Your task to perform on an android device: Search for vegetarian restaurants on Maps Image 0: 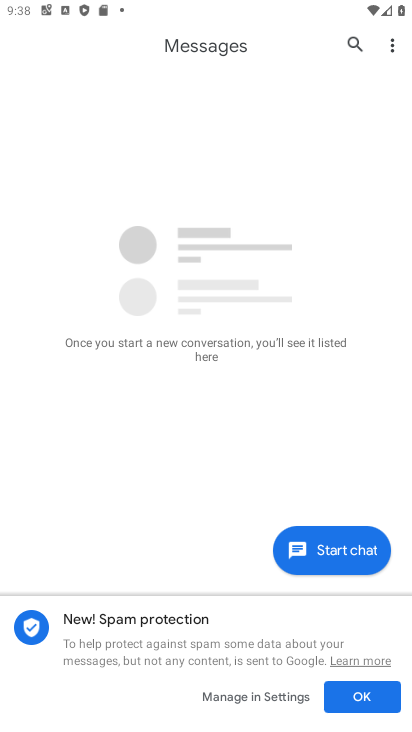
Step 0: press home button
Your task to perform on an android device: Search for vegetarian restaurants on Maps Image 1: 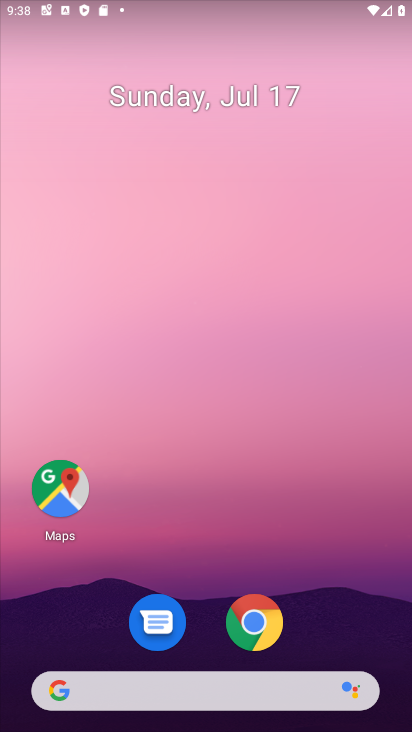
Step 1: click (66, 464)
Your task to perform on an android device: Search for vegetarian restaurants on Maps Image 2: 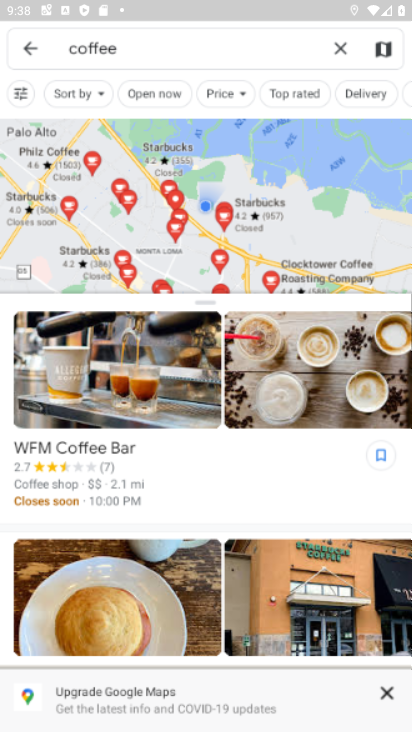
Step 2: click (344, 49)
Your task to perform on an android device: Search for vegetarian restaurants on Maps Image 3: 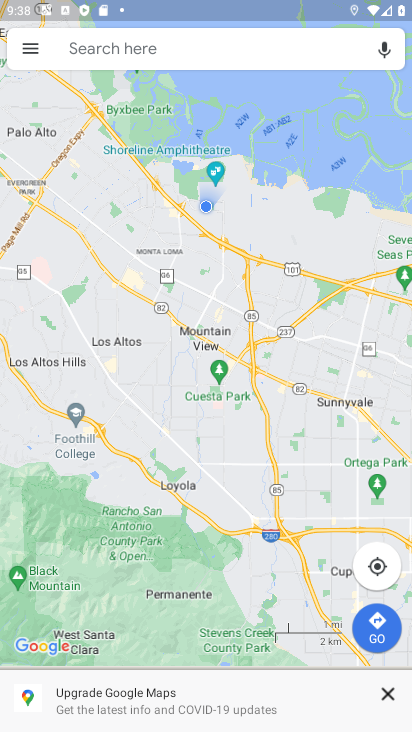
Step 3: click (190, 47)
Your task to perform on an android device: Search for vegetarian restaurants on Maps Image 4: 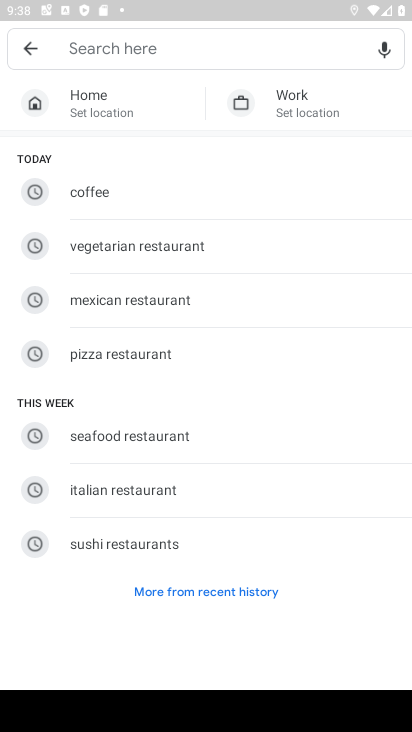
Step 4: click (148, 254)
Your task to perform on an android device: Search for vegetarian restaurants on Maps Image 5: 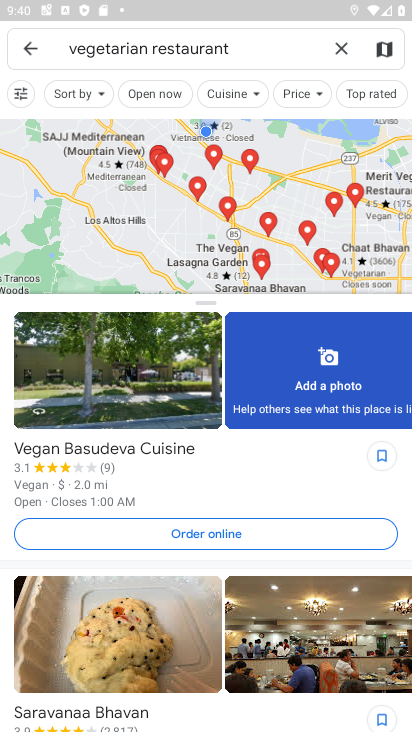
Step 5: task complete